Your task to perform on an android device: turn off notifications in google photos Image 0: 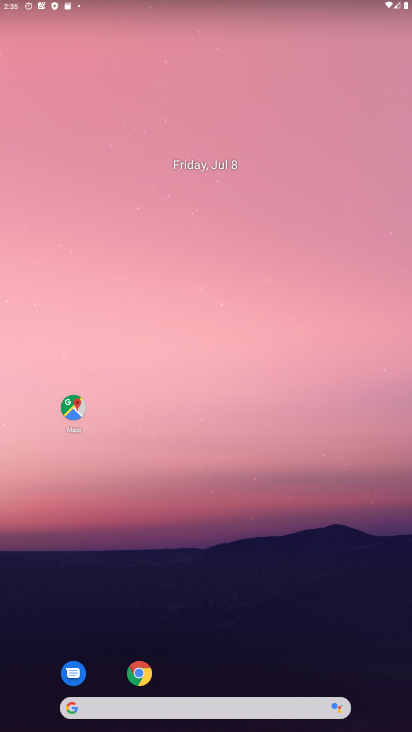
Step 0: drag from (226, 685) to (233, 207)
Your task to perform on an android device: turn off notifications in google photos Image 1: 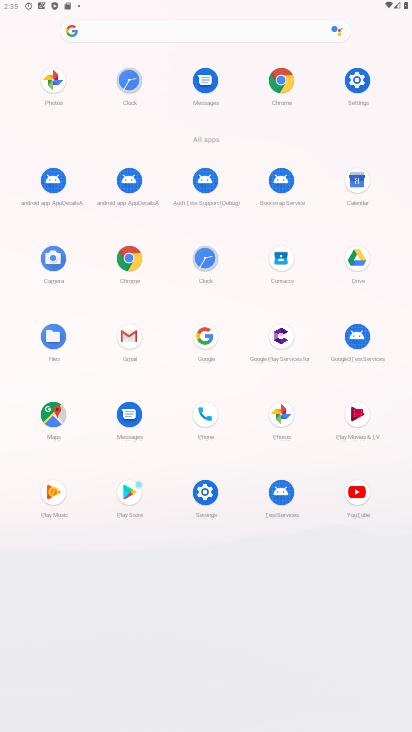
Step 1: click (284, 416)
Your task to perform on an android device: turn off notifications in google photos Image 2: 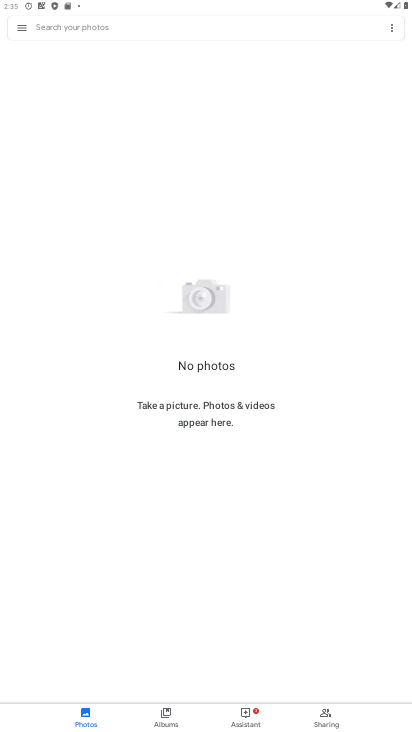
Step 2: click (18, 27)
Your task to perform on an android device: turn off notifications in google photos Image 3: 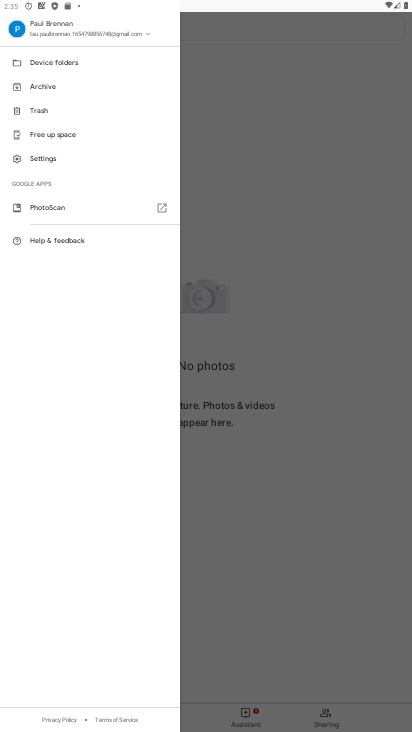
Step 3: click (45, 156)
Your task to perform on an android device: turn off notifications in google photos Image 4: 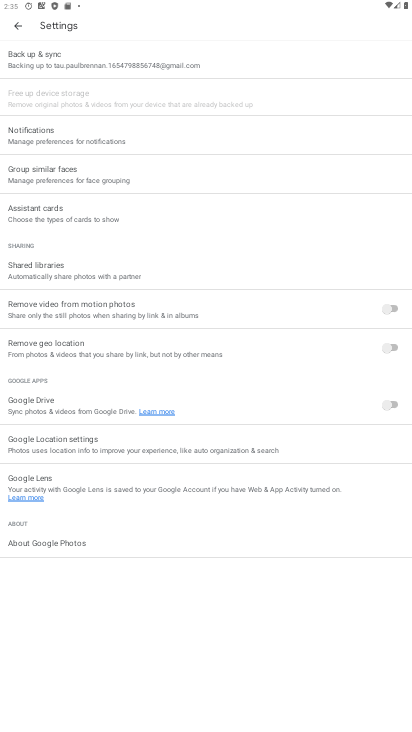
Step 4: click (77, 140)
Your task to perform on an android device: turn off notifications in google photos Image 5: 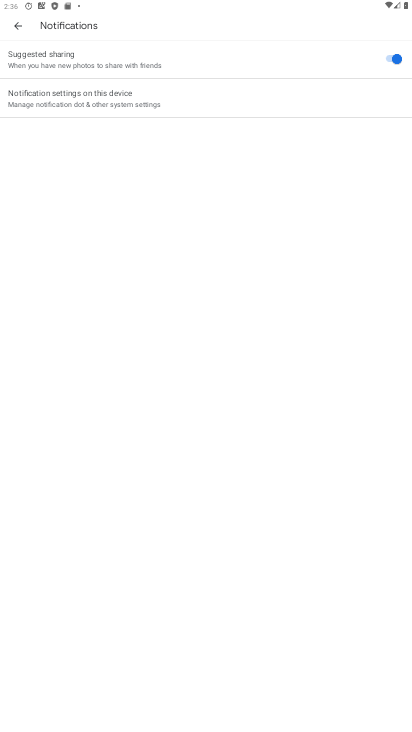
Step 5: click (139, 99)
Your task to perform on an android device: turn off notifications in google photos Image 6: 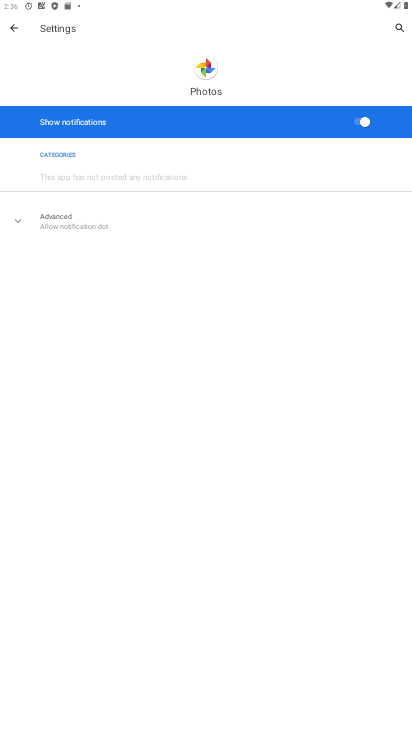
Step 6: click (359, 125)
Your task to perform on an android device: turn off notifications in google photos Image 7: 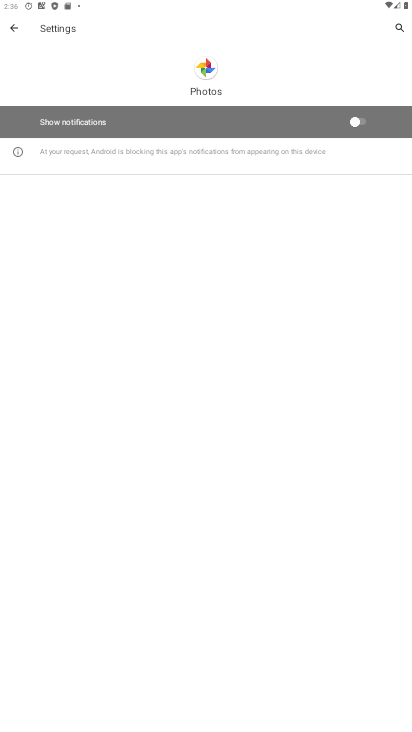
Step 7: task complete